Your task to perform on an android device: turn pop-ups off in chrome Image 0: 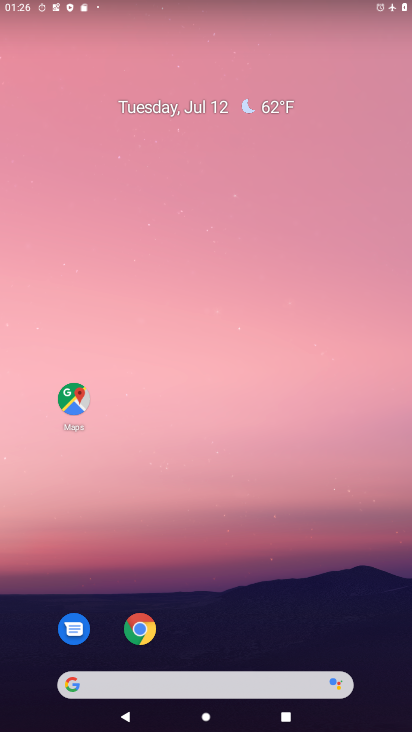
Step 0: drag from (277, 586) to (326, 40)
Your task to perform on an android device: turn pop-ups off in chrome Image 1: 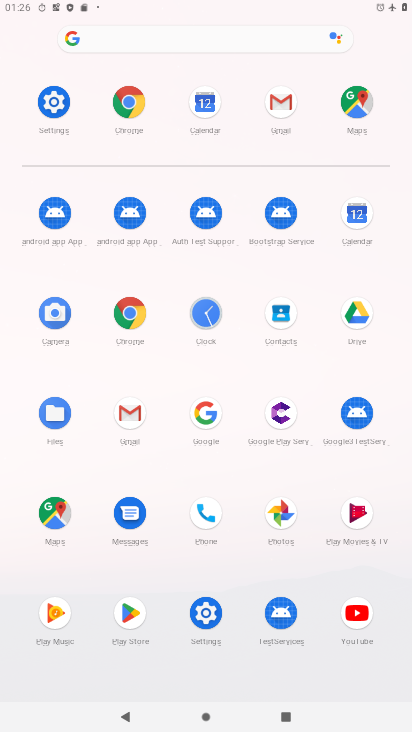
Step 1: click (122, 309)
Your task to perform on an android device: turn pop-ups off in chrome Image 2: 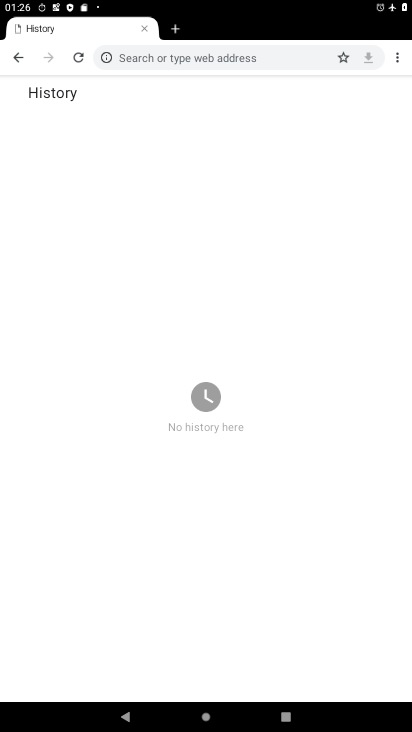
Step 2: drag from (401, 61) to (273, 262)
Your task to perform on an android device: turn pop-ups off in chrome Image 3: 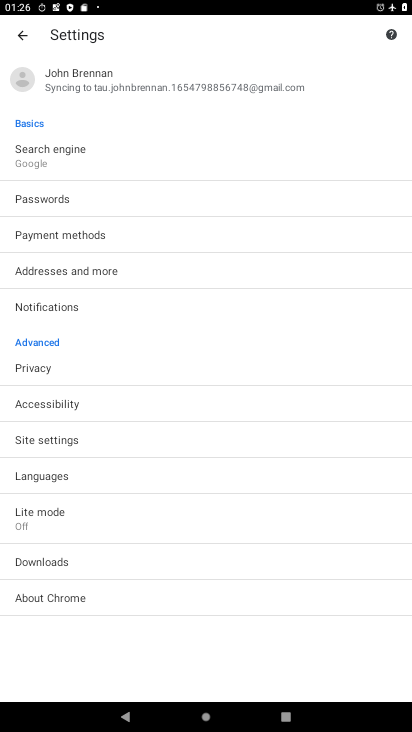
Step 3: click (48, 441)
Your task to perform on an android device: turn pop-ups off in chrome Image 4: 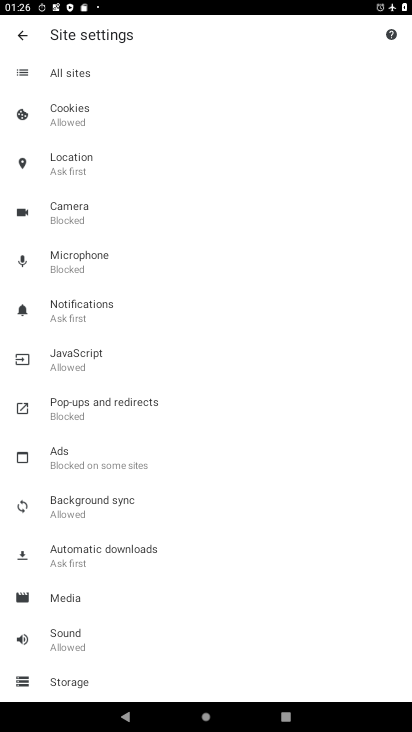
Step 4: click (80, 395)
Your task to perform on an android device: turn pop-ups off in chrome Image 5: 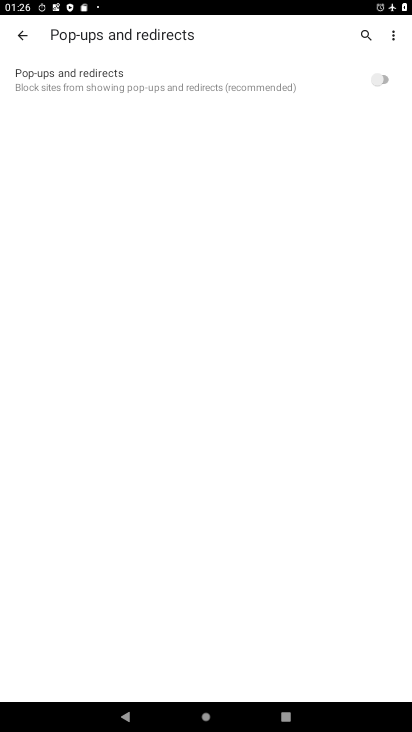
Step 5: task complete